Your task to perform on an android device: Open the calendar app, open the side menu, and click the "Day" option Image 0: 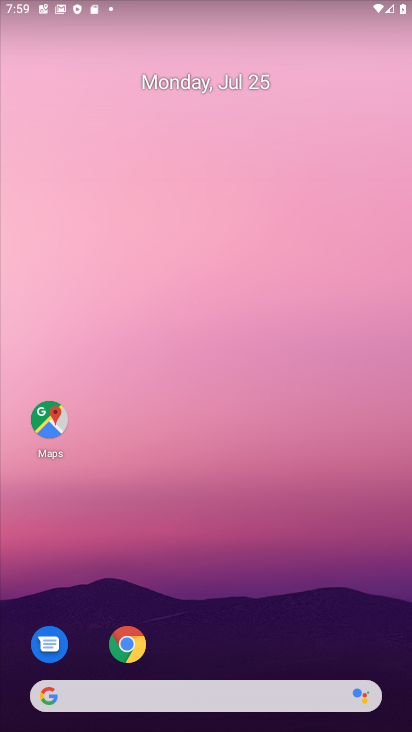
Step 0: drag from (203, 583) to (202, 149)
Your task to perform on an android device: Open the calendar app, open the side menu, and click the "Day" option Image 1: 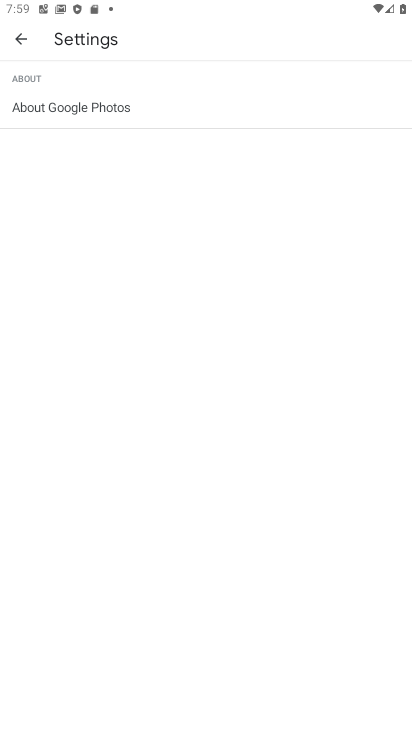
Step 1: press home button
Your task to perform on an android device: Open the calendar app, open the side menu, and click the "Day" option Image 2: 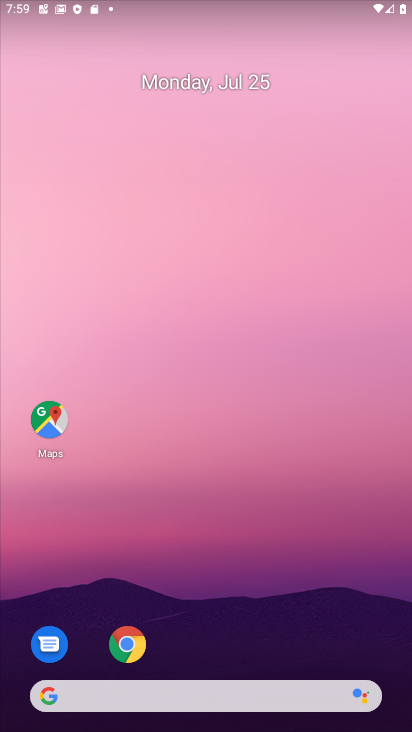
Step 2: drag from (218, 568) to (209, 121)
Your task to perform on an android device: Open the calendar app, open the side menu, and click the "Day" option Image 3: 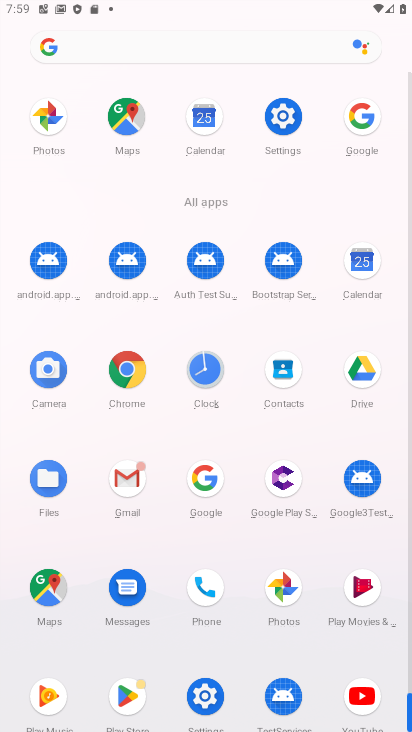
Step 3: click (358, 260)
Your task to perform on an android device: Open the calendar app, open the side menu, and click the "Day" option Image 4: 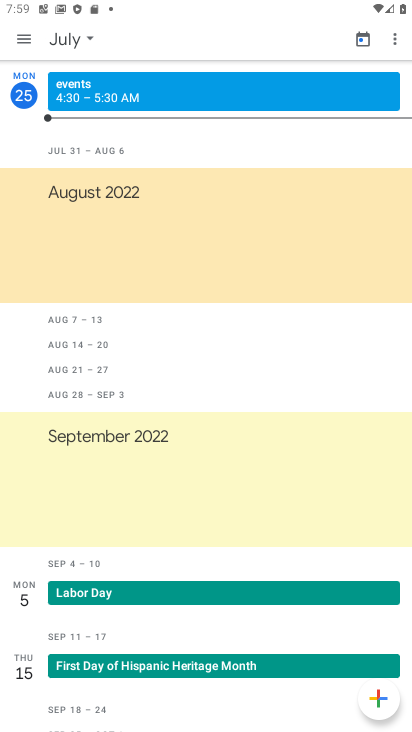
Step 4: click (27, 41)
Your task to perform on an android device: Open the calendar app, open the side menu, and click the "Day" option Image 5: 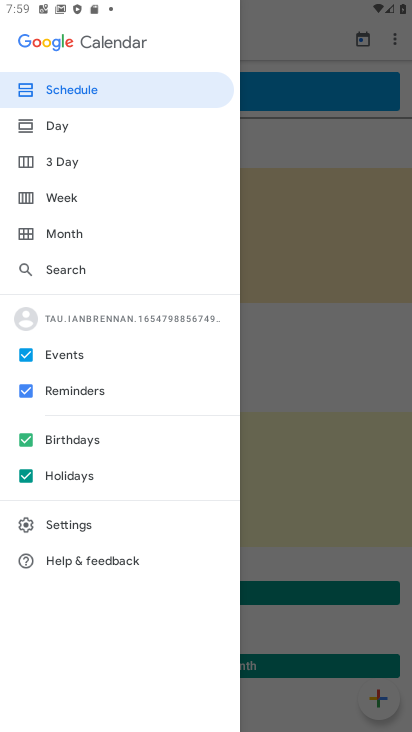
Step 5: click (74, 141)
Your task to perform on an android device: Open the calendar app, open the side menu, and click the "Day" option Image 6: 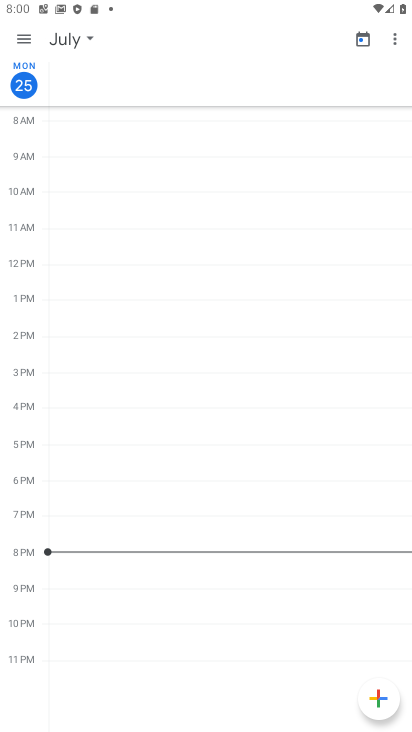
Step 6: task complete